Your task to perform on an android device: Go to location settings Image 0: 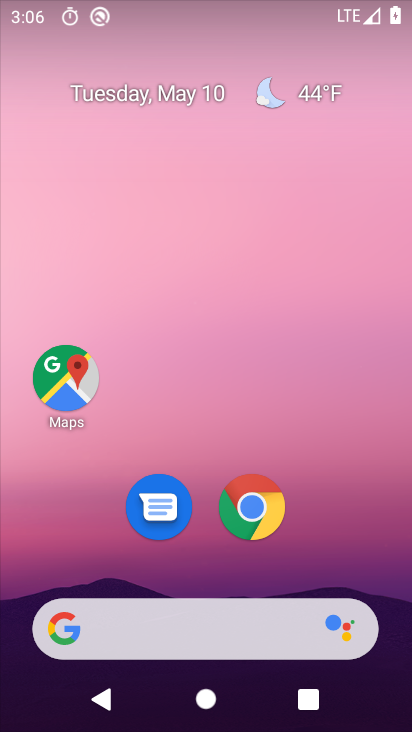
Step 0: drag from (183, 595) to (211, 176)
Your task to perform on an android device: Go to location settings Image 1: 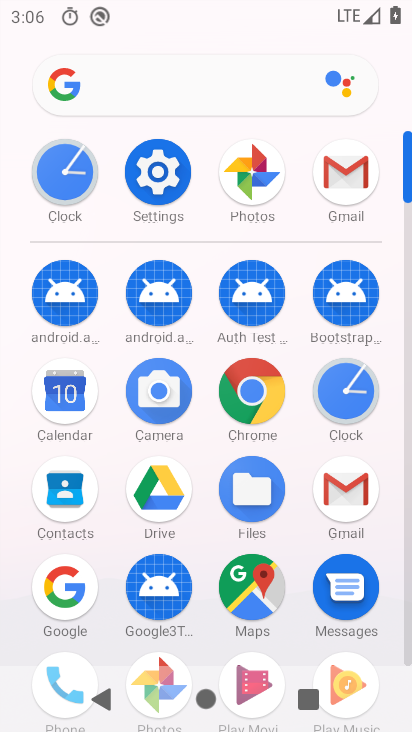
Step 1: click (134, 176)
Your task to perform on an android device: Go to location settings Image 2: 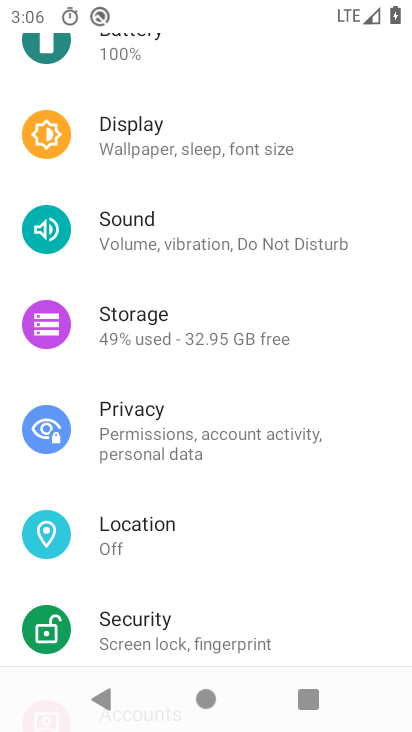
Step 2: click (150, 531)
Your task to perform on an android device: Go to location settings Image 3: 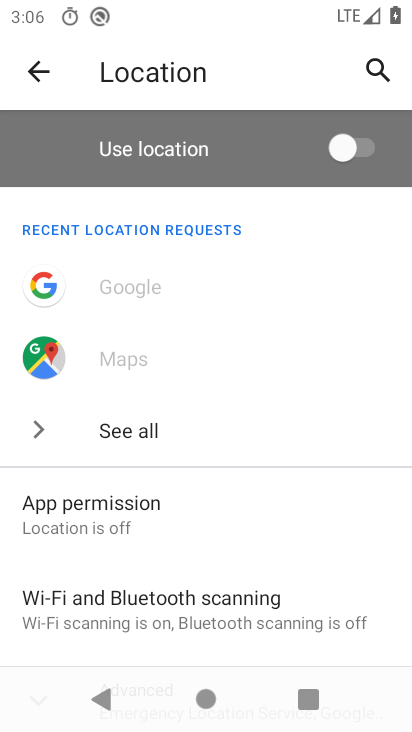
Step 3: drag from (161, 618) to (148, 314)
Your task to perform on an android device: Go to location settings Image 4: 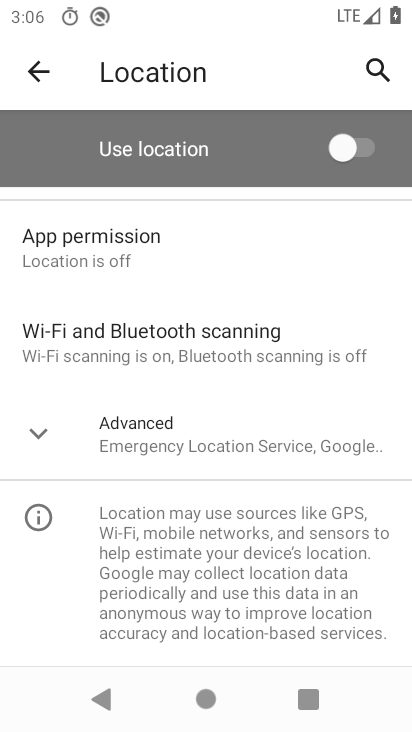
Step 4: drag from (155, 574) to (129, 300)
Your task to perform on an android device: Go to location settings Image 5: 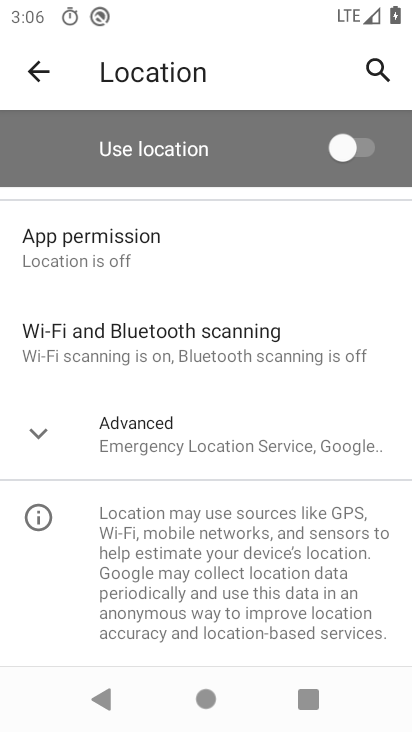
Step 5: click (140, 446)
Your task to perform on an android device: Go to location settings Image 6: 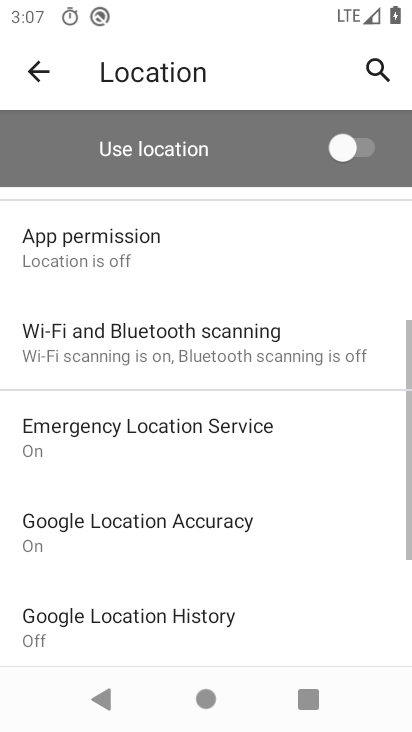
Step 6: task complete